Your task to perform on an android device: What is the news today? Image 0: 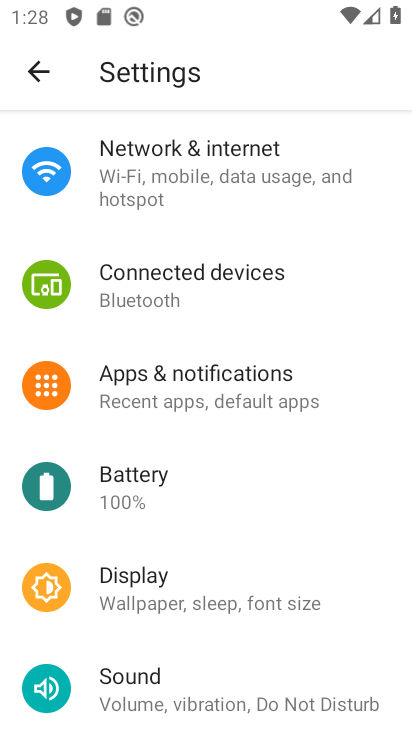
Step 0: press home button
Your task to perform on an android device: What is the news today? Image 1: 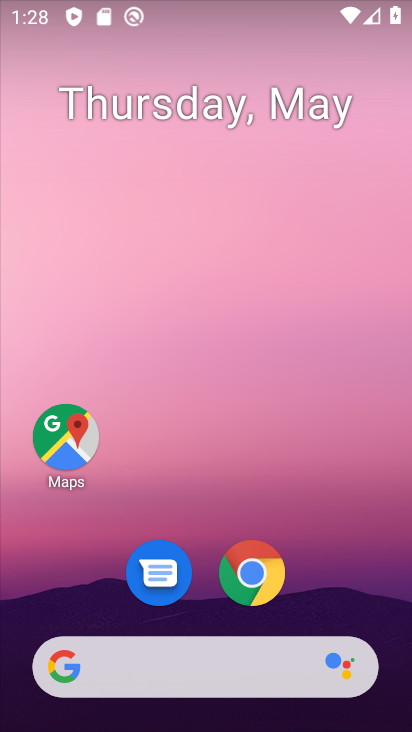
Step 1: click (249, 574)
Your task to perform on an android device: What is the news today? Image 2: 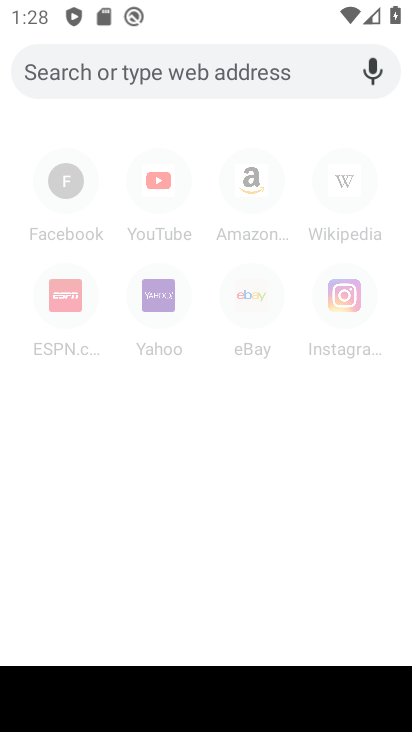
Step 2: click (178, 83)
Your task to perform on an android device: What is the news today? Image 3: 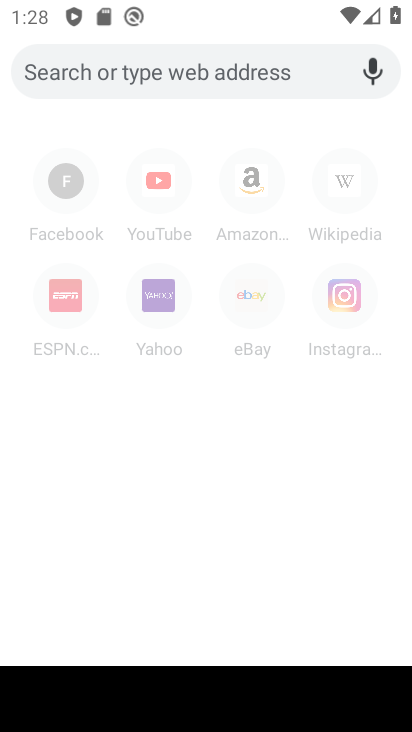
Step 3: click (178, 83)
Your task to perform on an android device: What is the news today? Image 4: 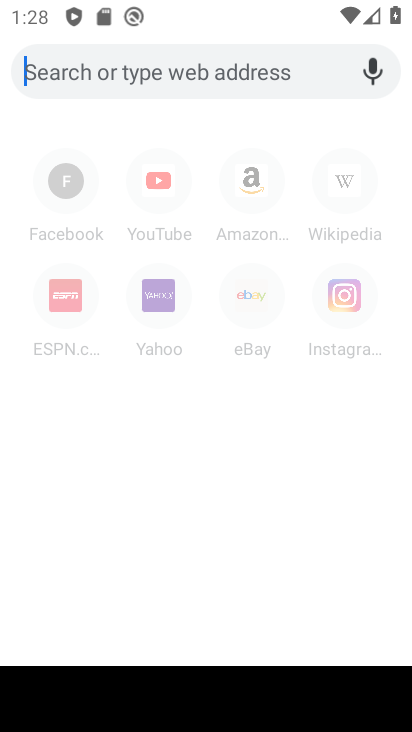
Step 4: type "What is the news today?"
Your task to perform on an android device: What is the news today? Image 5: 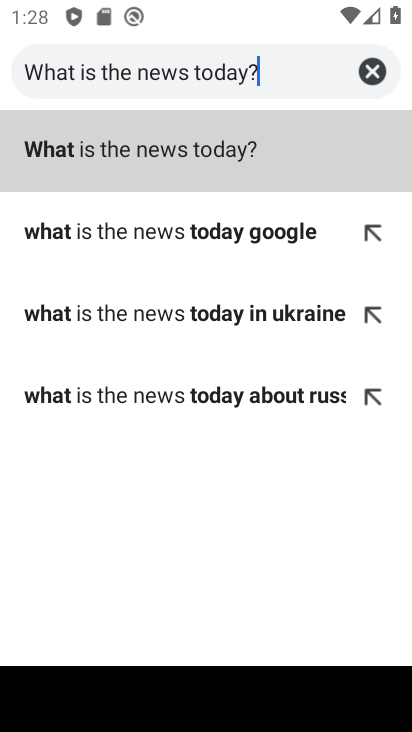
Step 5: click (158, 122)
Your task to perform on an android device: What is the news today? Image 6: 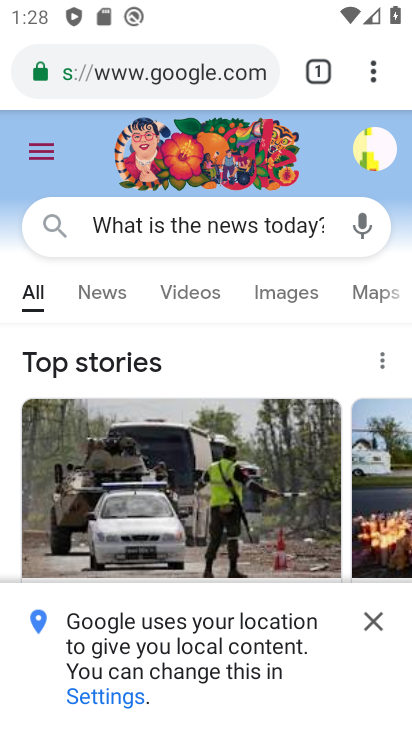
Step 6: task complete